Your task to perform on an android device: See recent photos Image 0: 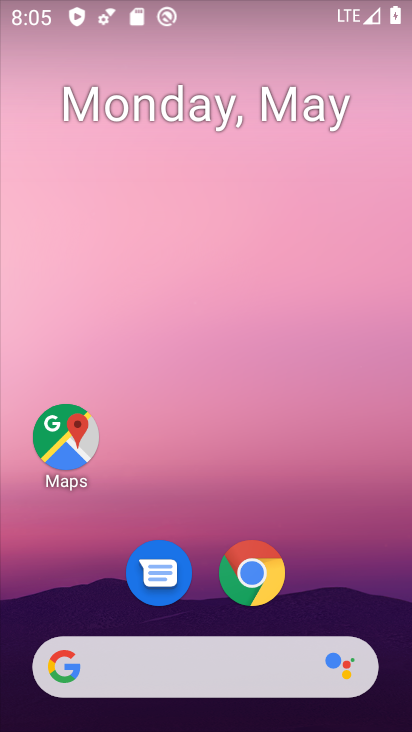
Step 0: drag from (88, 617) to (244, 109)
Your task to perform on an android device: See recent photos Image 1: 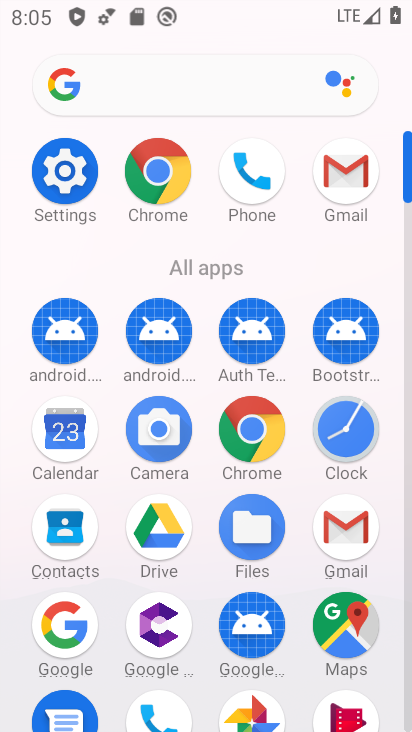
Step 1: drag from (200, 623) to (258, 311)
Your task to perform on an android device: See recent photos Image 2: 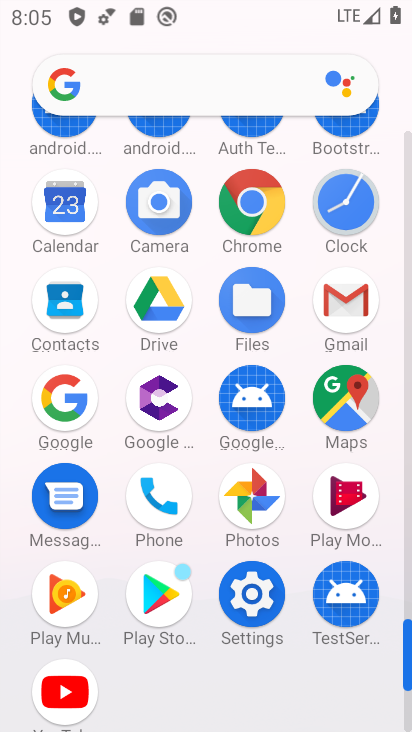
Step 2: click (253, 522)
Your task to perform on an android device: See recent photos Image 3: 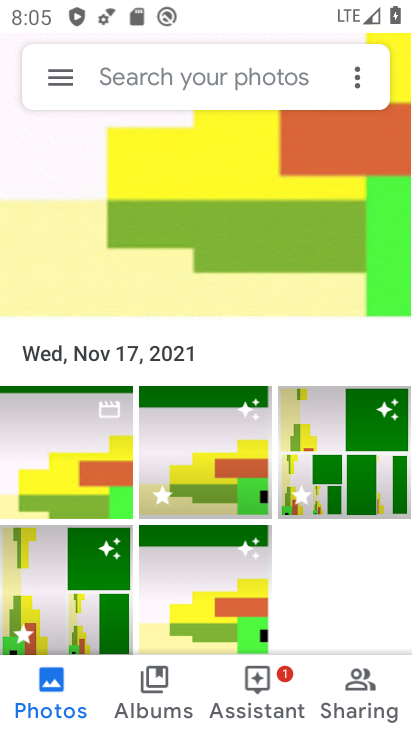
Step 3: task complete